Your task to perform on an android device: move an email to a new category in the gmail app Image 0: 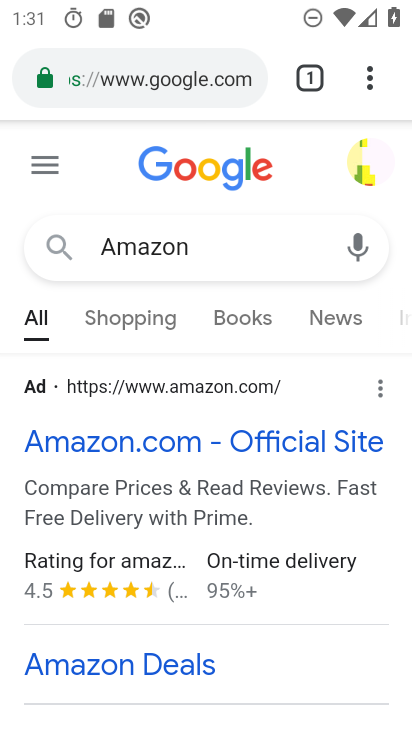
Step 0: press home button
Your task to perform on an android device: move an email to a new category in the gmail app Image 1: 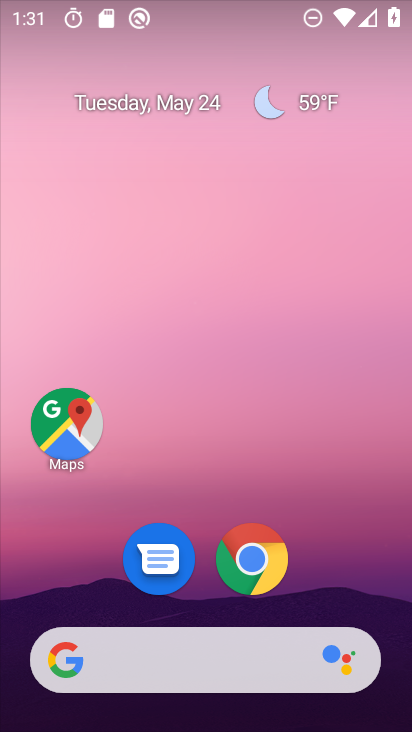
Step 1: drag from (399, 674) to (324, 115)
Your task to perform on an android device: move an email to a new category in the gmail app Image 2: 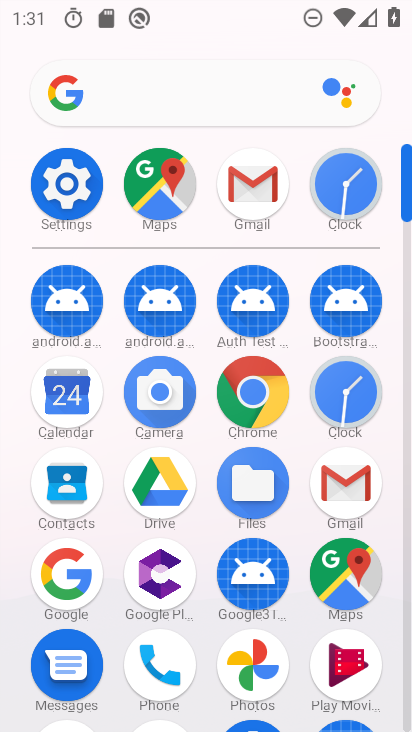
Step 2: click (334, 508)
Your task to perform on an android device: move an email to a new category in the gmail app Image 3: 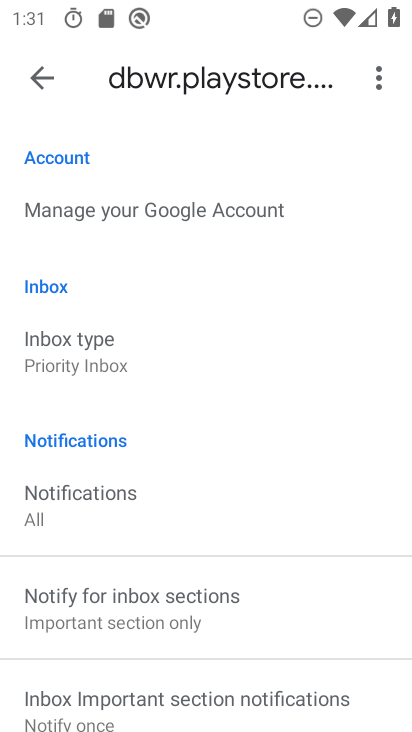
Step 3: click (41, 81)
Your task to perform on an android device: move an email to a new category in the gmail app Image 4: 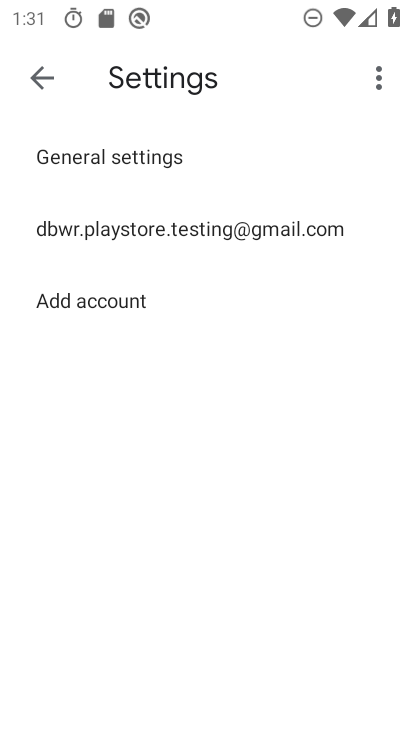
Step 4: click (39, 82)
Your task to perform on an android device: move an email to a new category in the gmail app Image 5: 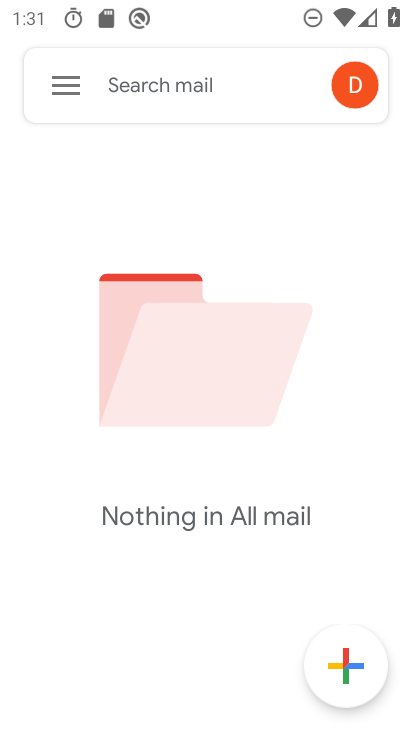
Step 5: click (62, 80)
Your task to perform on an android device: move an email to a new category in the gmail app Image 6: 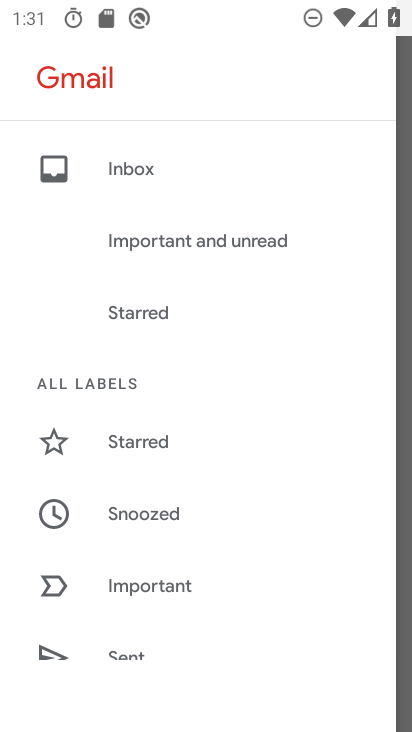
Step 6: click (150, 169)
Your task to perform on an android device: move an email to a new category in the gmail app Image 7: 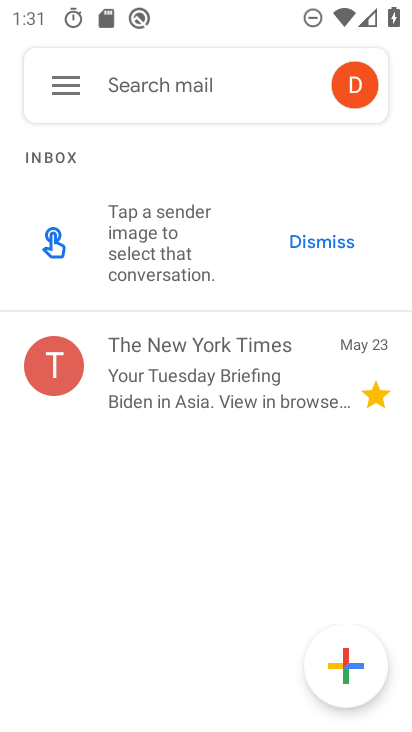
Step 7: click (164, 350)
Your task to perform on an android device: move an email to a new category in the gmail app Image 8: 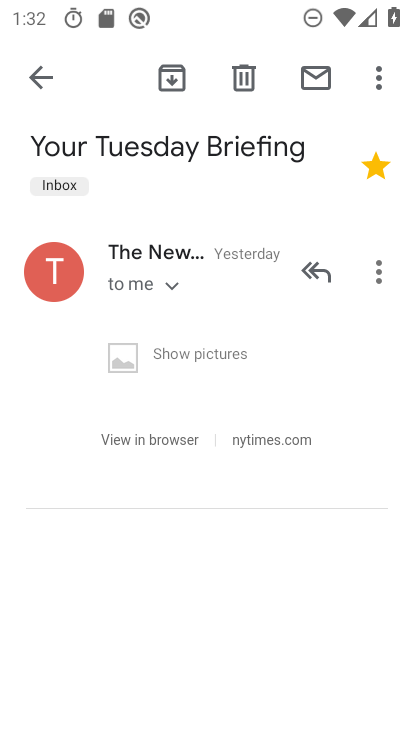
Step 8: click (375, 69)
Your task to perform on an android device: move an email to a new category in the gmail app Image 9: 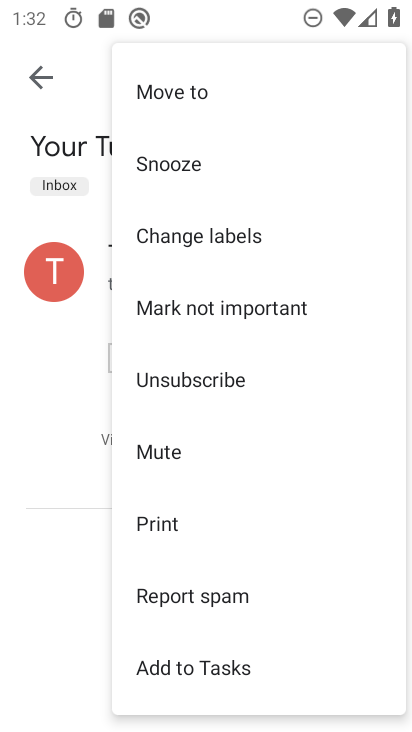
Step 9: click (164, 92)
Your task to perform on an android device: move an email to a new category in the gmail app Image 10: 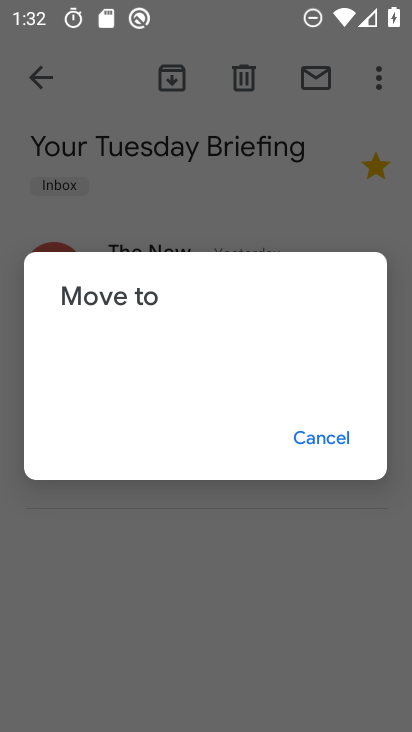
Step 10: click (296, 442)
Your task to perform on an android device: move an email to a new category in the gmail app Image 11: 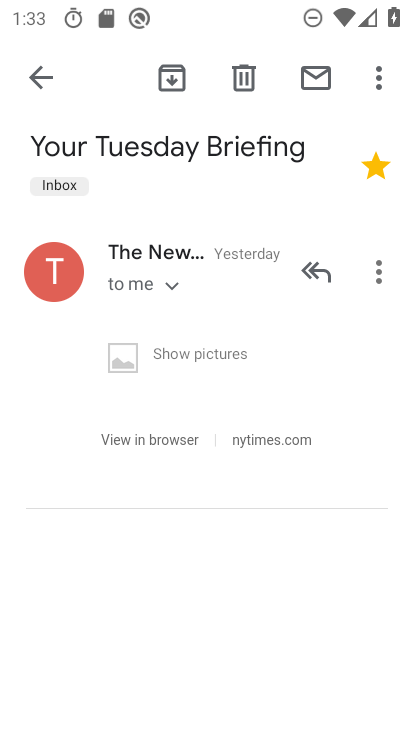
Step 11: task complete